Your task to perform on an android device: turn on bluetooth scan Image 0: 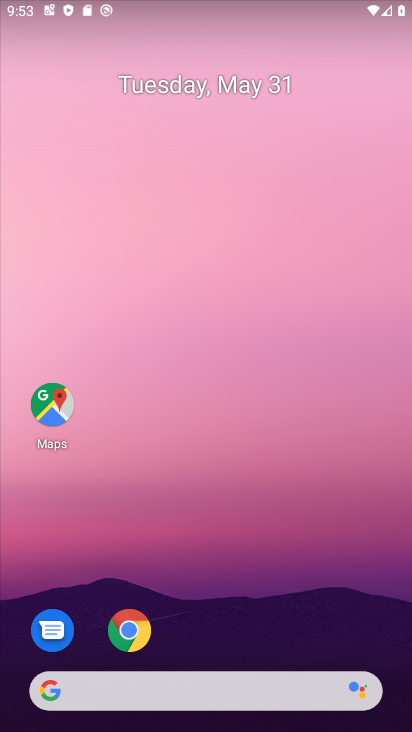
Step 0: drag from (236, 663) to (237, 212)
Your task to perform on an android device: turn on bluetooth scan Image 1: 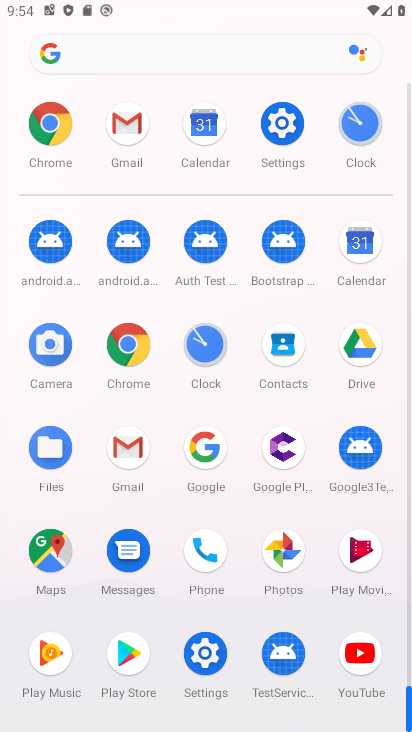
Step 1: click (280, 138)
Your task to perform on an android device: turn on bluetooth scan Image 2: 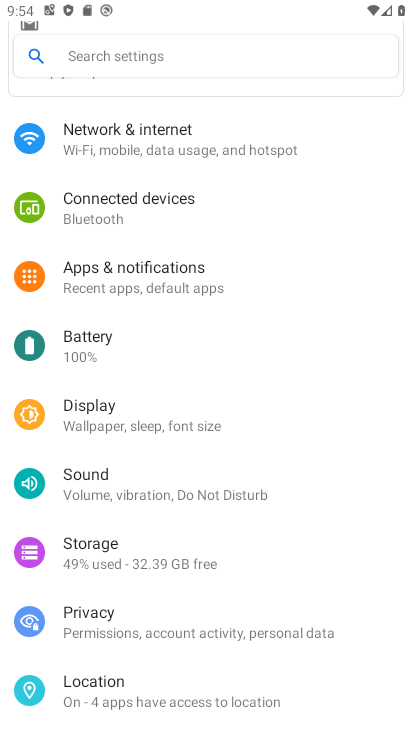
Step 2: click (163, 214)
Your task to perform on an android device: turn on bluetooth scan Image 3: 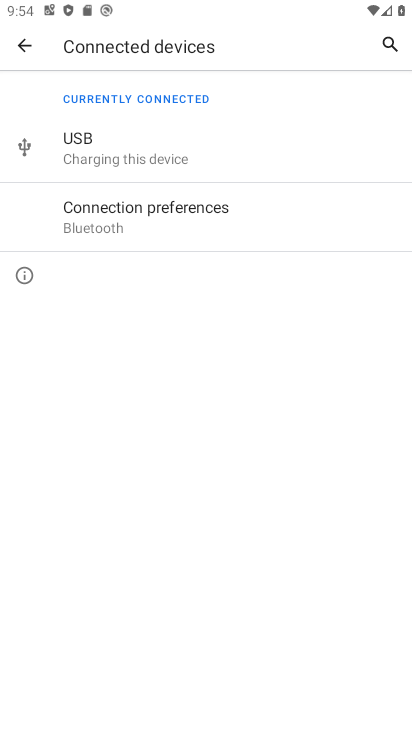
Step 3: click (183, 220)
Your task to perform on an android device: turn on bluetooth scan Image 4: 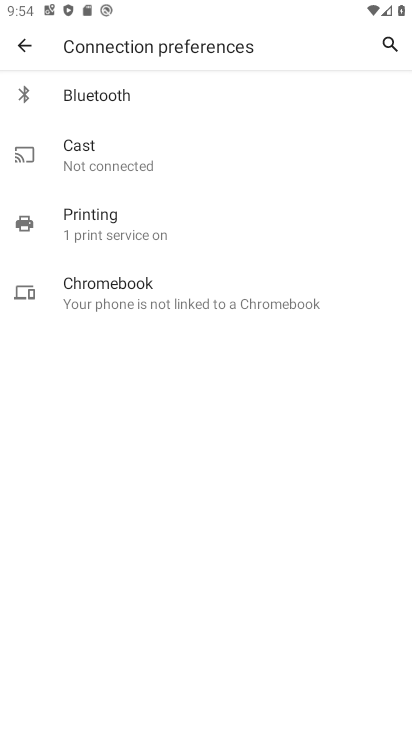
Step 4: click (138, 92)
Your task to perform on an android device: turn on bluetooth scan Image 5: 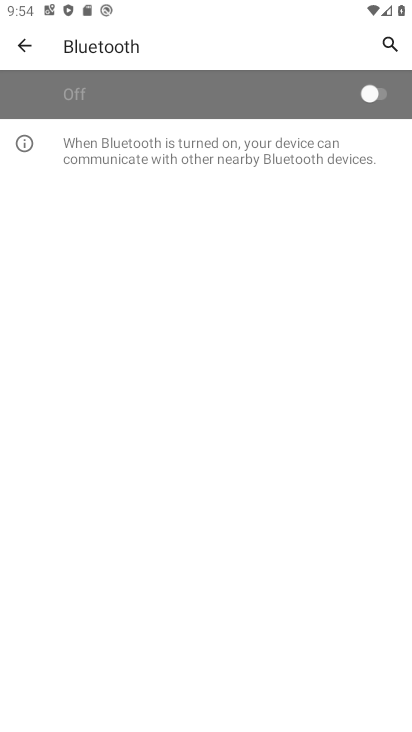
Step 5: click (390, 87)
Your task to perform on an android device: turn on bluetooth scan Image 6: 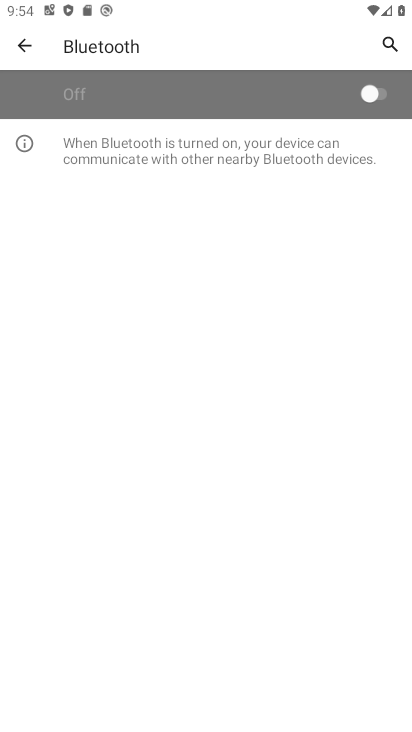
Step 6: task complete